Your task to perform on an android device: delete browsing data in the chrome app Image 0: 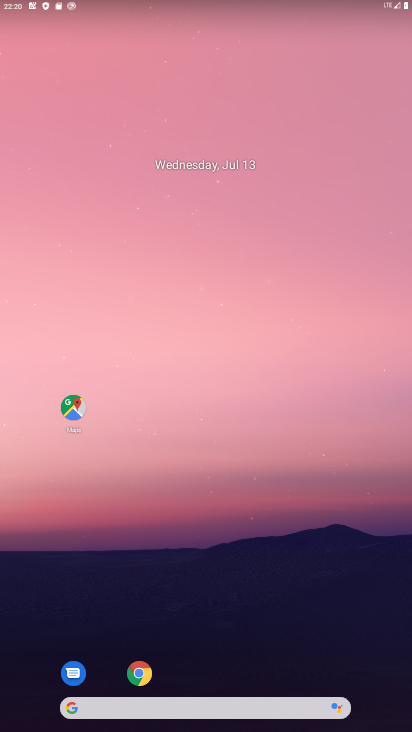
Step 0: drag from (187, 661) to (389, 309)
Your task to perform on an android device: delete browsing data in the chrome app Image 1: 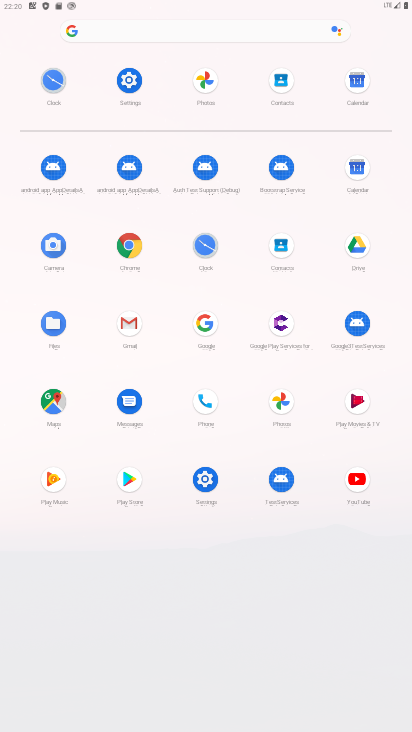
Step 1: click (128, 247)
Your task to perform on an android device: delete browsing data in the chrome app Image 2: 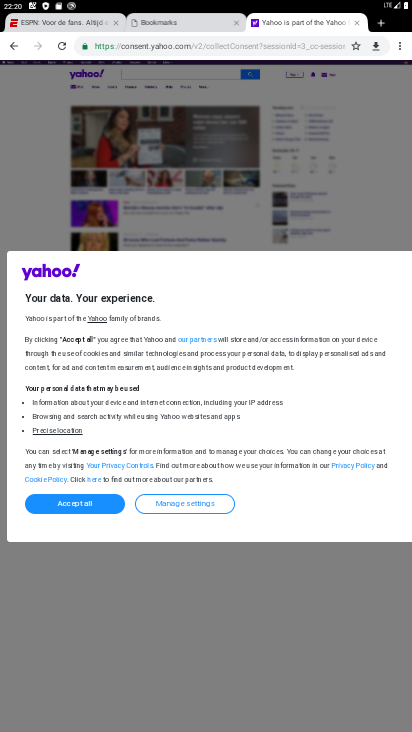
Step 2: drag from (396, 44) to (335, 136)
Your task to perform on an android device: delete browsing data in the chrome app Image 3: 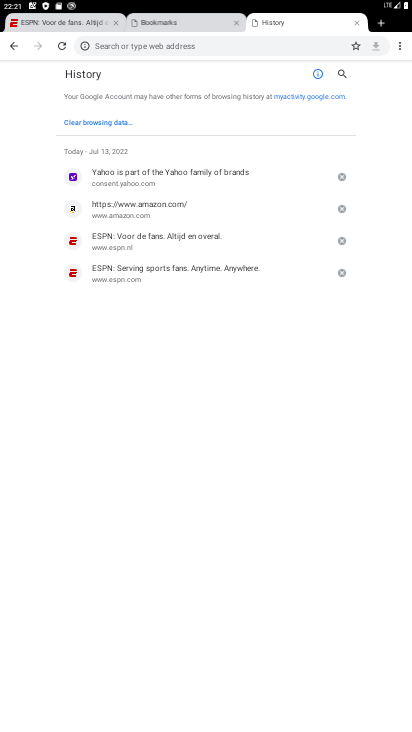
Step 3: click (96, 118)
Your task to perform on an android device: delete browsing data in the chrome app Image 4: 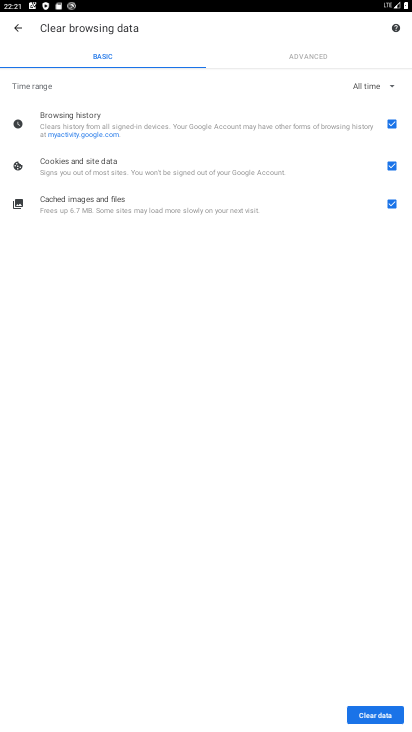
Step 4: click (365, 715)
Your task to perform on an android device: delete browsing data in the chrome app Image 5: 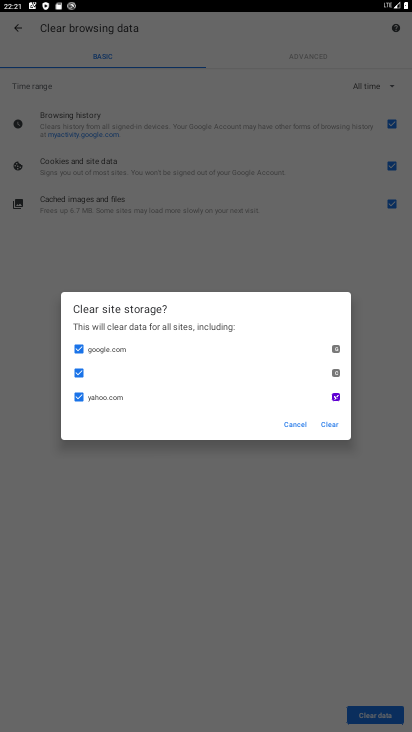
Step 5: click (332, 426)
Your task to perform on an android device: delete browsing data in the chrome app Image 6: 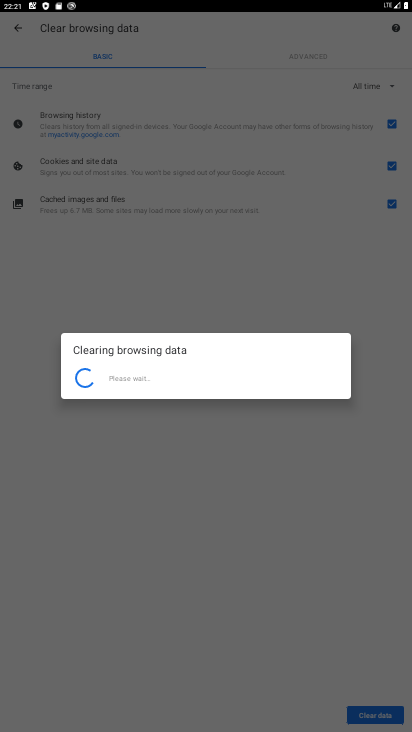
Step 6: task complete